Your task to perform on an android device: create a new album in the google photos Image 0: 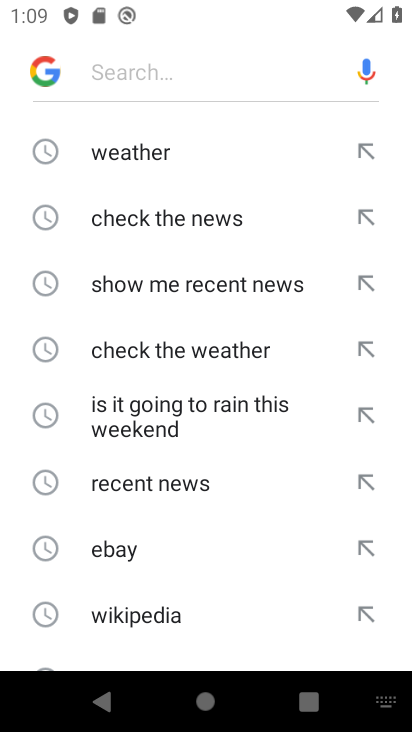
Step 0: press home button
Your task to perform on an android device: create a new album in the google photos Image 1: 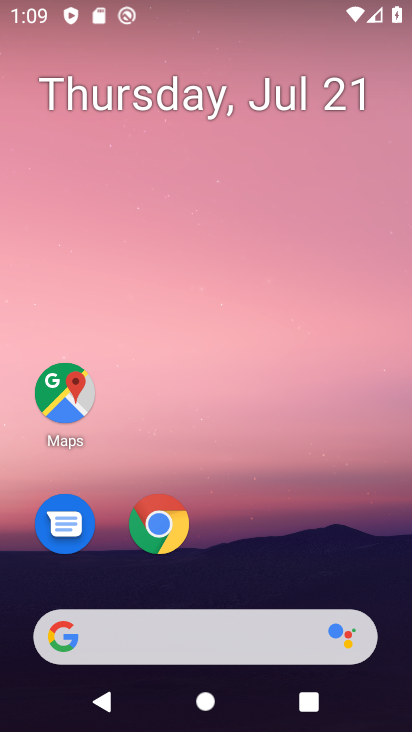
Step 1: drag from (228, 514) to (241, 28)
Your task to perform on an android device: create a new album in the google photos Image 2: 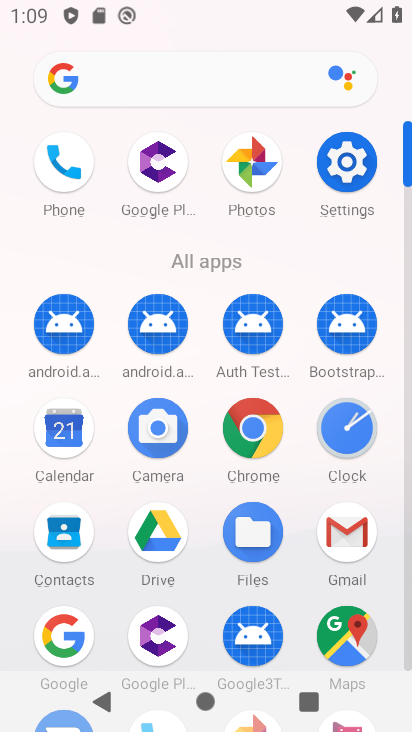
Step 2: click (257, 161)
Your task to perform on an android device: create a new album in the google photos Image 3: 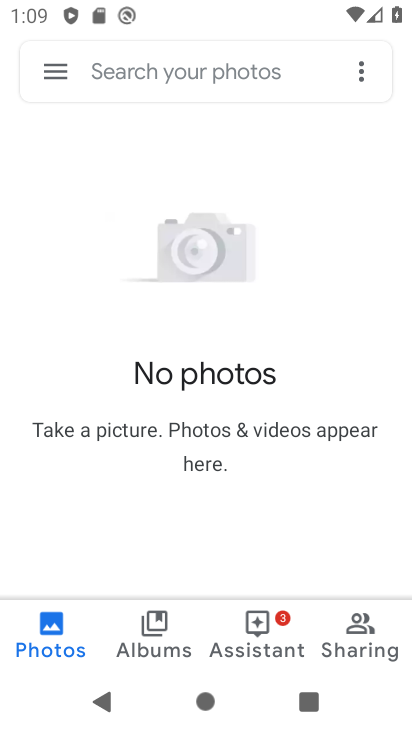
Step 3: click (160, 623)
Your task to perform on an android device: create a new album in the google photos Image 4: 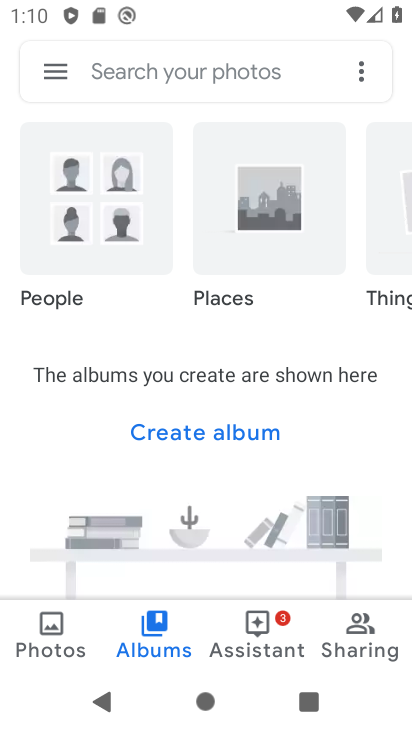
Step 4: click (253, 430)
Your task to perform on an android device: create a new album in the google photos Image 5: 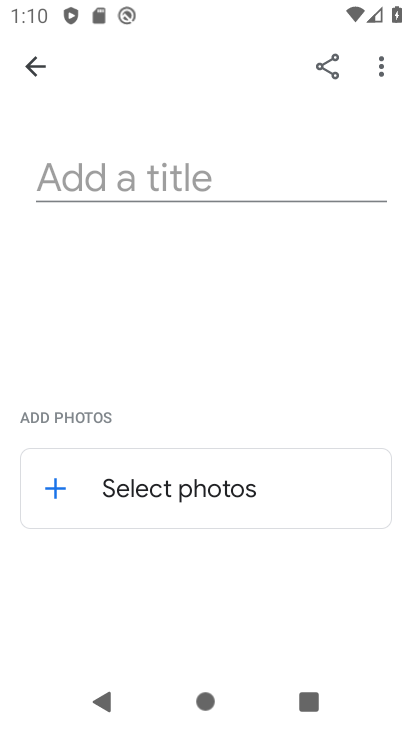
Step 5: type "Ayodhya"
Your task to perform on an android device: create a new album in the google photos Image 6: 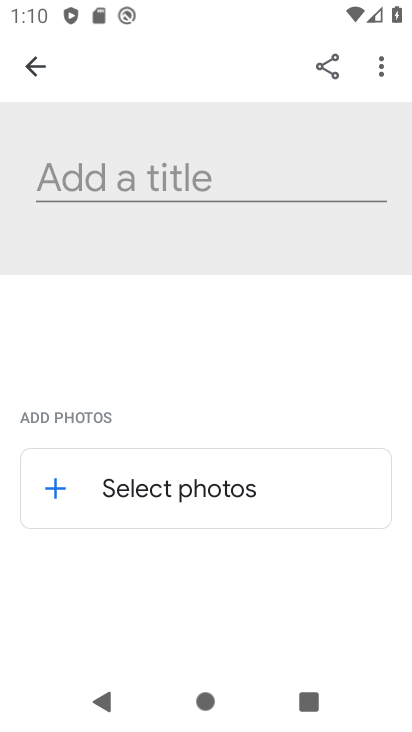
Step 6: click (37, 60)
Your task to perform on an android device: create a new album in the google photos Image 7: 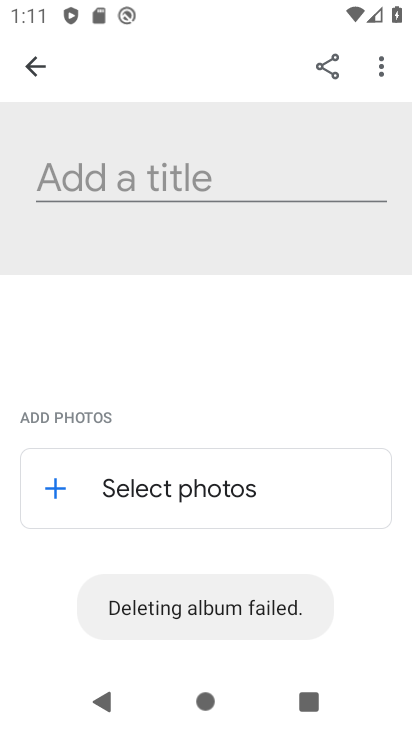
Step 7: task complete